Your task to perform on an android device: toggle airplane mode Image 0: 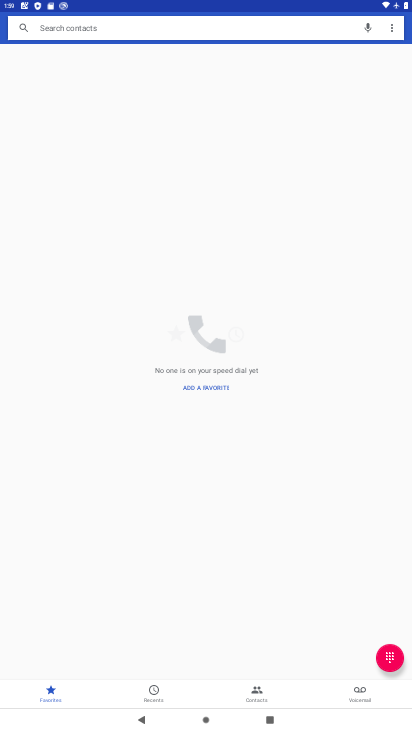
Step 0: press home button
Your task to perform on an android device: toggle airplane mode Image 1: 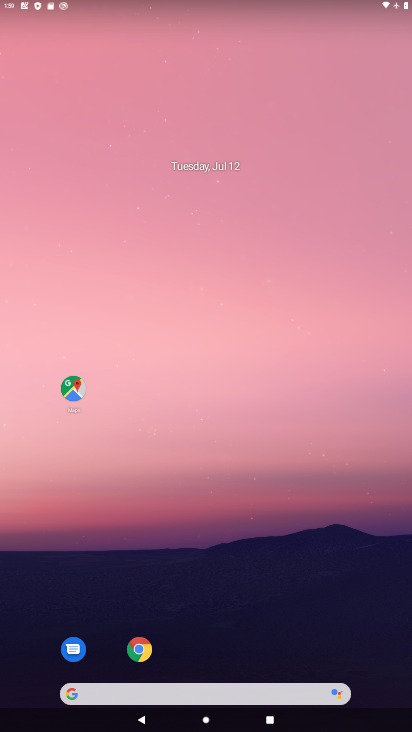
Step 1: drag from (272, 605) to (174, 162)
Your task to perform on an android device: toggle airplane mode Image 2: 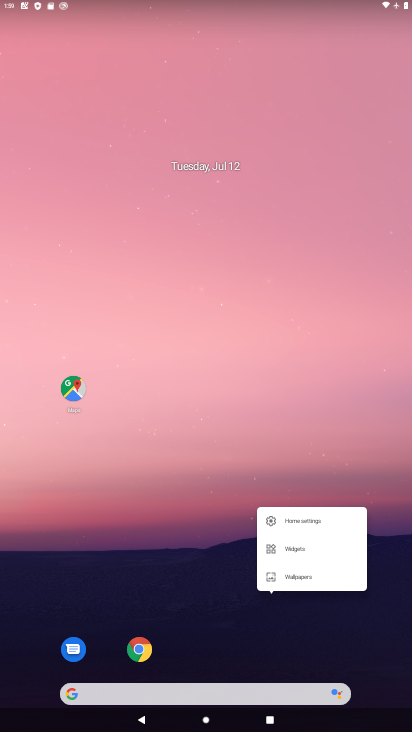
Step 2: click (172, 320)
Your task to perform on an android device: toggle airplane mode Image 3: 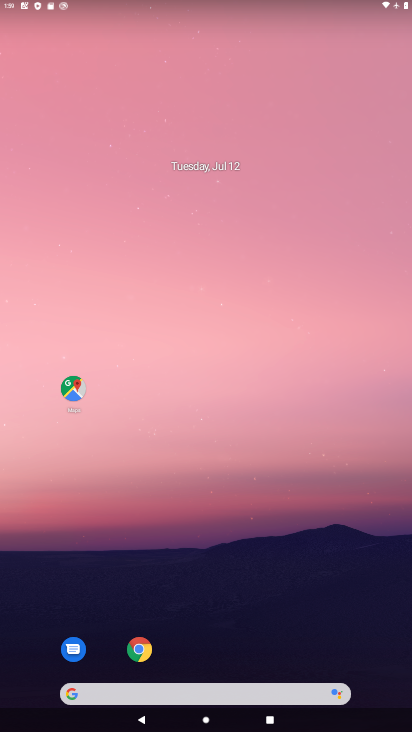
Step 3: drag from (230, 628) to (227, 134)
Your task to perform on an android device: toggle airplane mode Image 4: 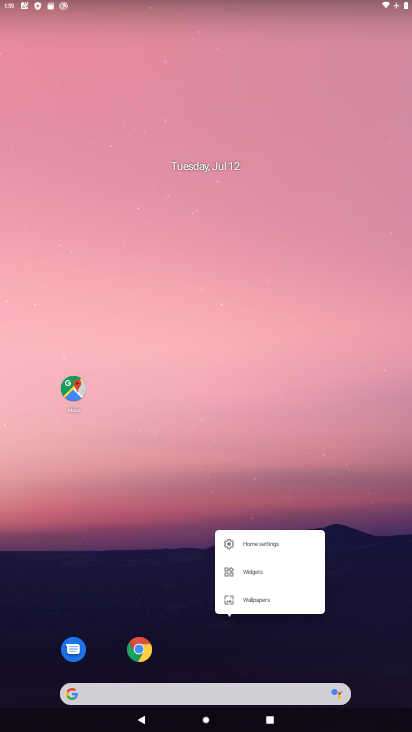
Step 4: click (257, 336)
Your task to perform on an android device: toggle airplane mode Image 5: 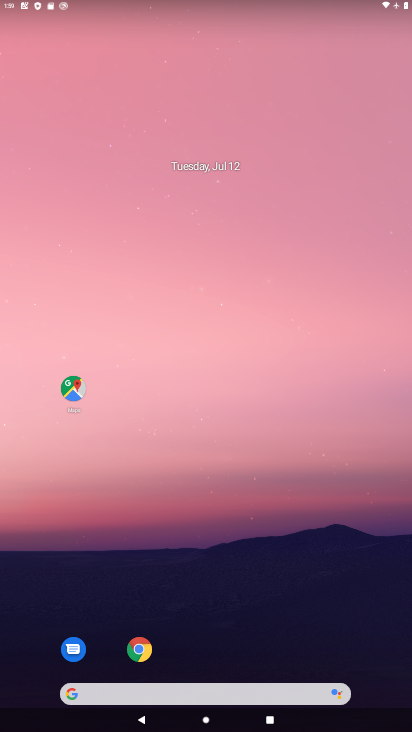
Step 5: drag from (278, 616) to (261, 350)
Your task to perform on an android device: toggle airplane mode Image 6: 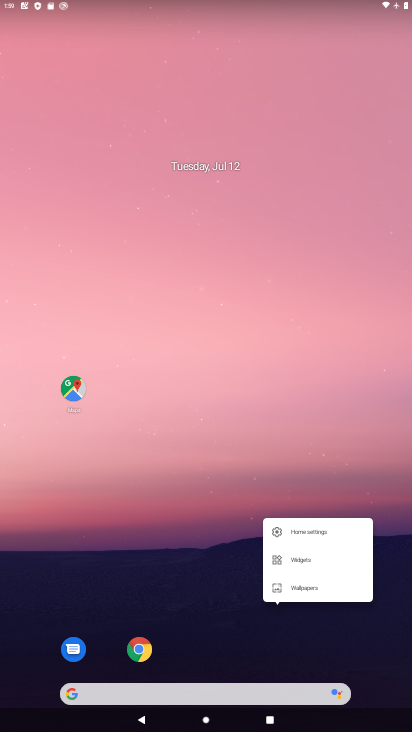
Step 6: click (261, 350)
Your task to perform on an android device: toggle airplane mode Image 7: 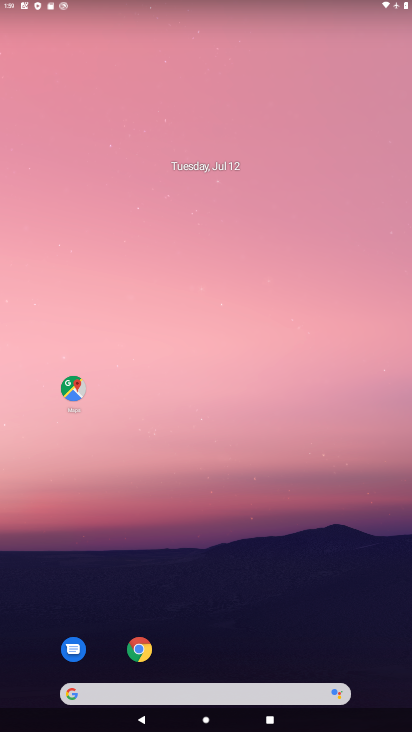
Step 7: drag from (233, 631) to (197, 205)
Your task to perform on an android device: toggle airplane mode Image 8: 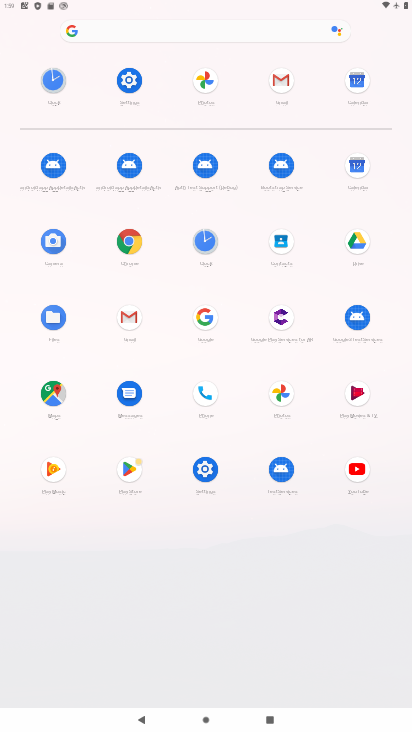
Step 8: click (139, 93)
Your task to perform on an android device: toggle airplane mode Image 9: 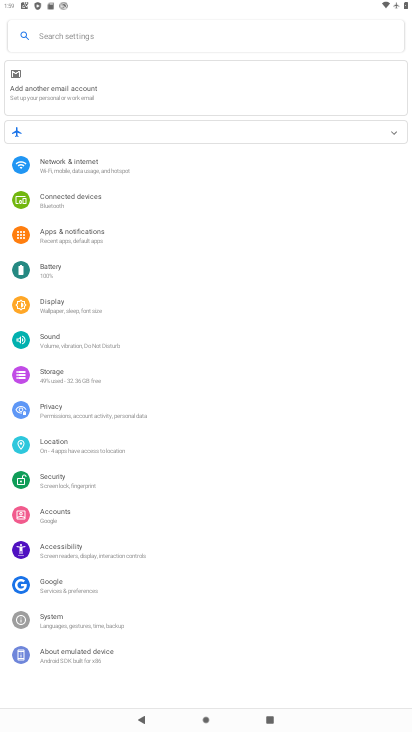
Step 9: click (101, 159)
Your task to perform on an android device: toggle airplane mode Image 10: 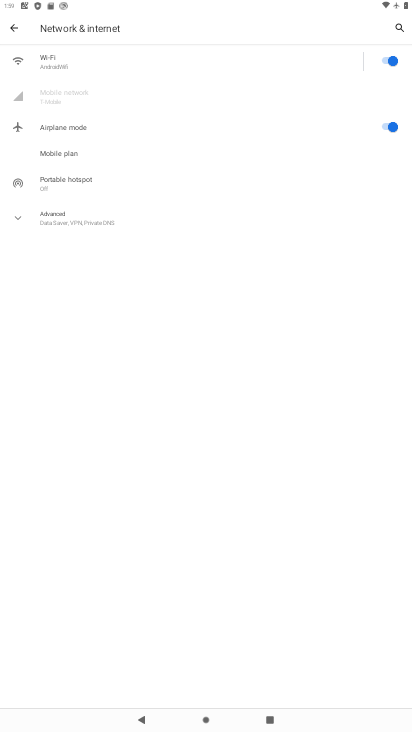
Step 10: click (391, 120)
Your task to perform on an android device: toggle airplane mode Image 11: 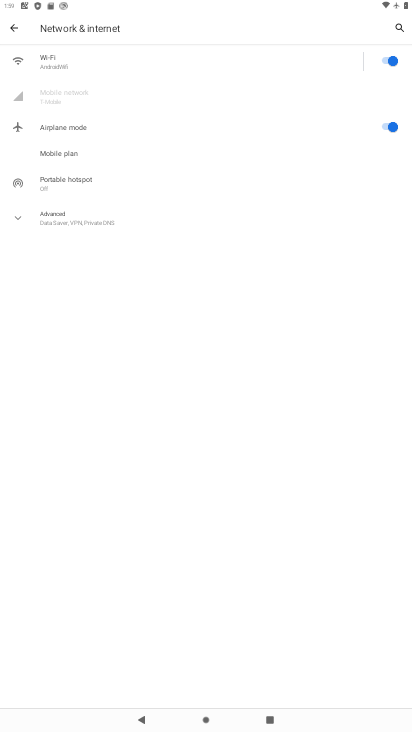
Step 11: click (391, 120)
Your task to perform on an android device: toggle airplane mode Image 12: 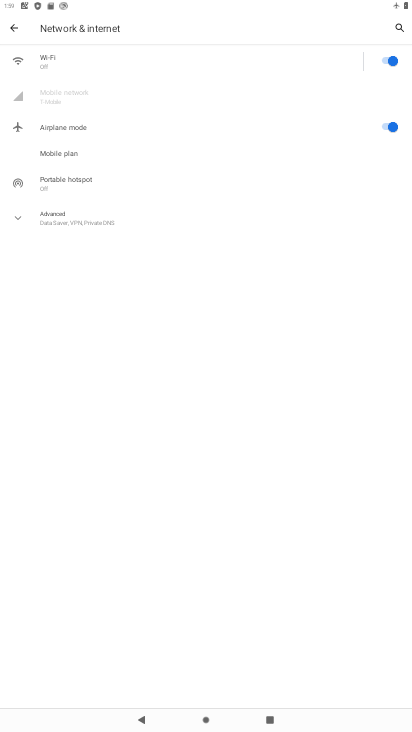
Step 12: task complete